Your task to perform on an android device: check battery use Image 0: 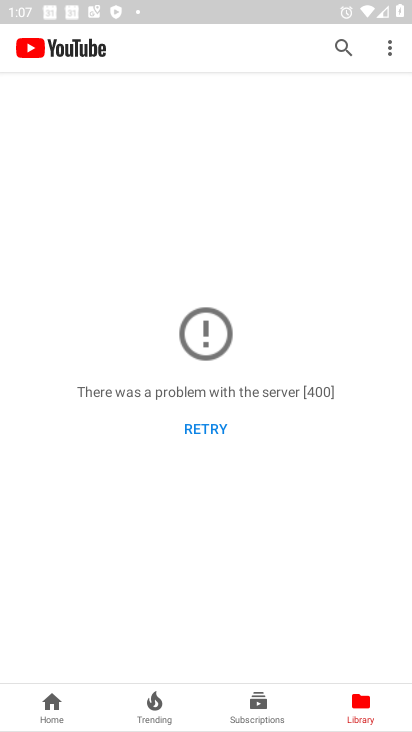
Step 0: press home button
Your task to perform on an android device: check battery use Image 1: 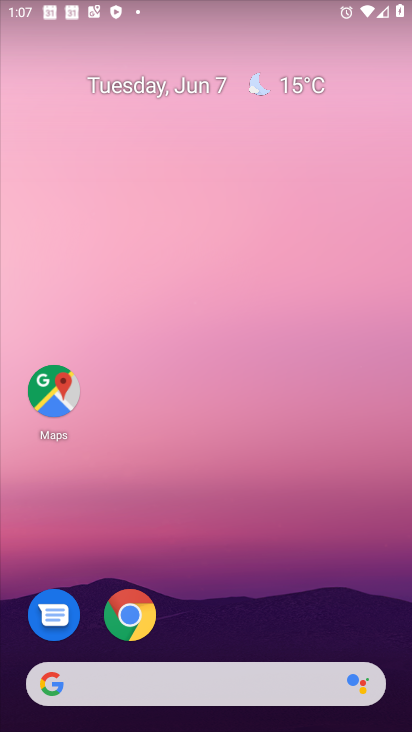
Step 1: drag from (196, 626) to (163, 365)
Your task to perform on an android device: check battery use Image 2: 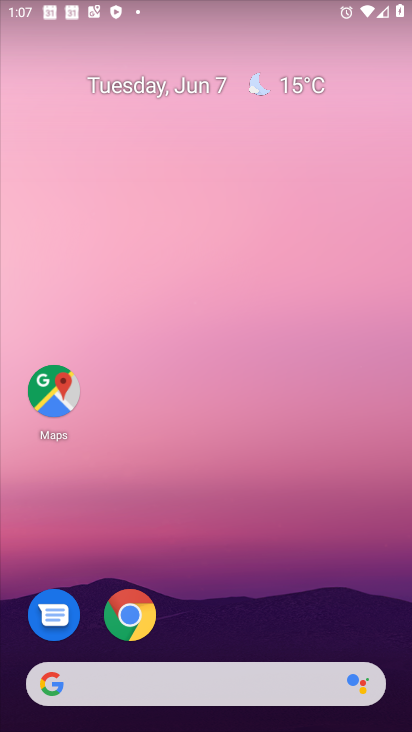
Step 2: drag from (179, 619) to (191, 14)
Your task to perform on an android device: check battery use Image 3: 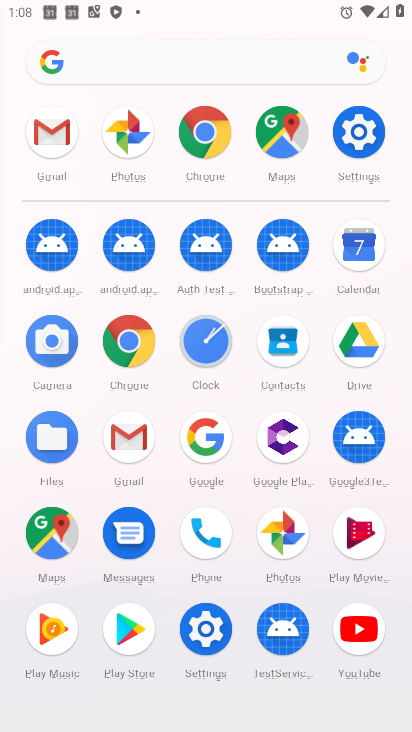
Step 3: click (357, 139)
Your task to perform on an android device: check battery use Image 4: 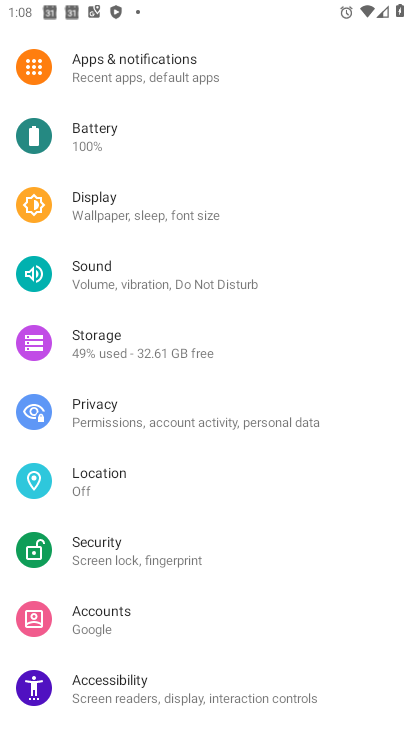
Step 4: click (103, 146)
Your task to perform on an android device: check battery use Image 5: 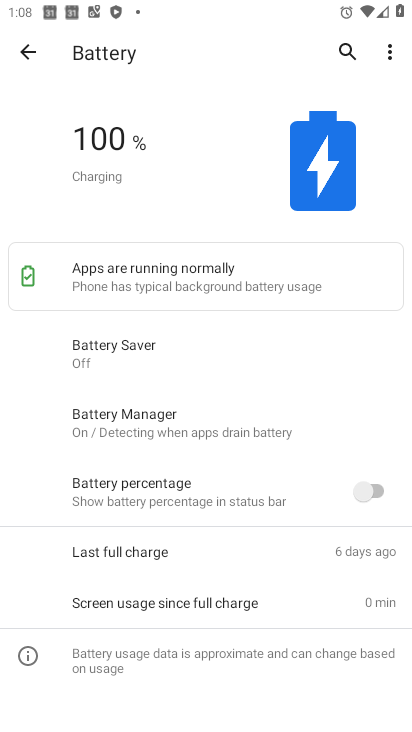
Step 5: task complete